Your task to perform on an android device: turn on bluetooth scan Image 0: 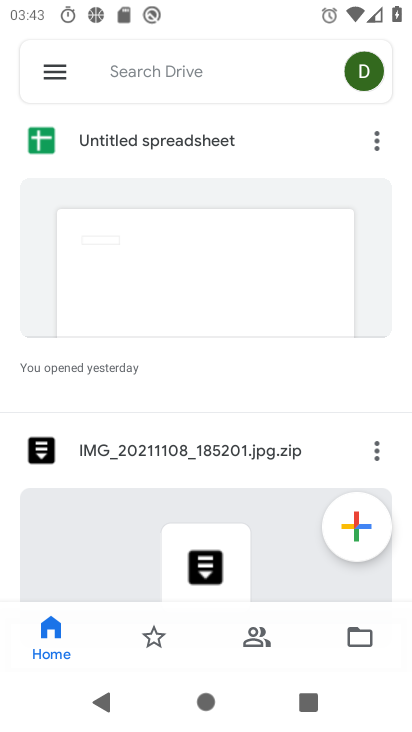
Step 0: press home button
Your task to perform on an android device: turn on bluetooth scan Image 1: 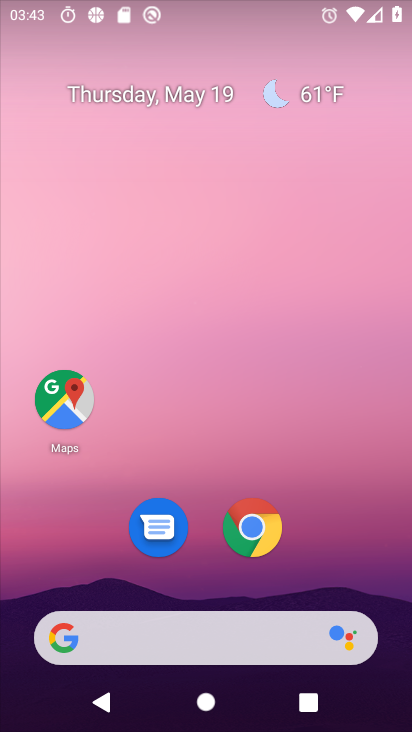
Step 1: drag from (211, 522) to (309, 53)
Your task to perform on an android device: turn on bluetooth scan Image 2: 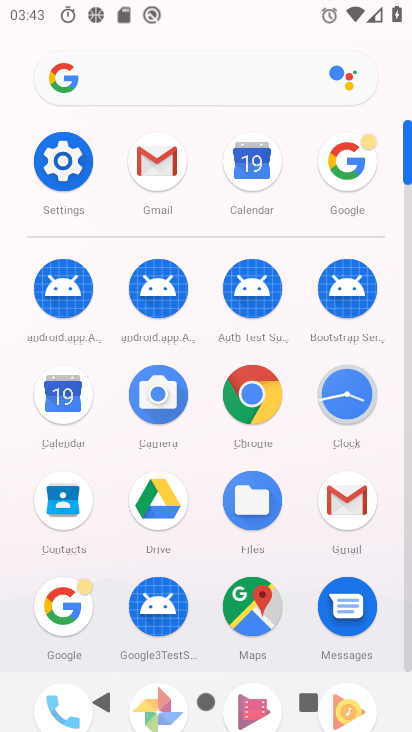
Step 2: click (56, 154)
Your task to perform on an android device: turn on bluetooth scan Image 3: 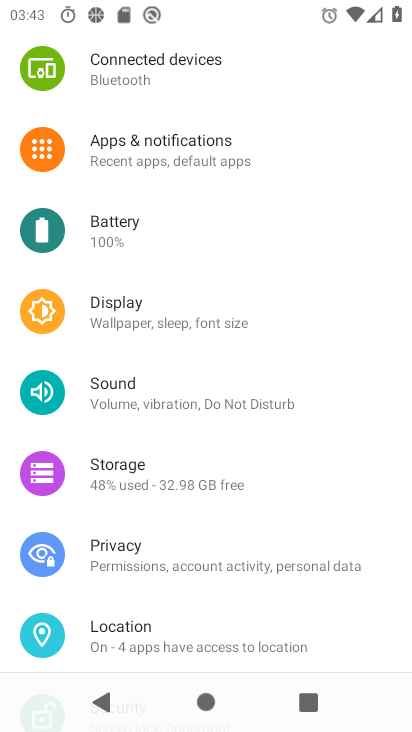
Step 3: click (164, 75)
Your task to perform on an android device: turn on bluetooth scan Image 4: 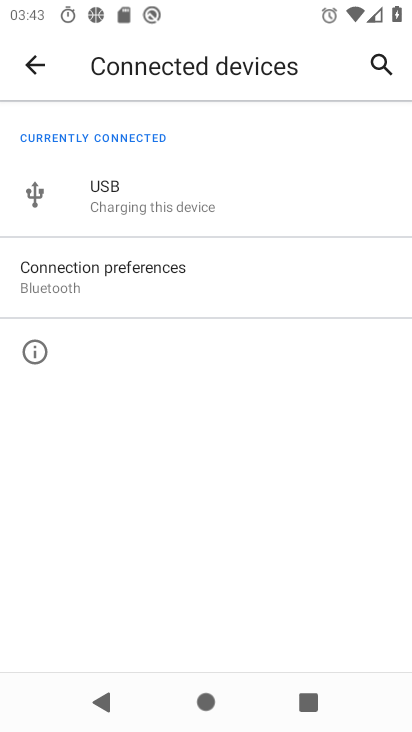
Step 4: click (41, 273)
Your task to perform on an android device: turn on bluetooth scan Image 5: 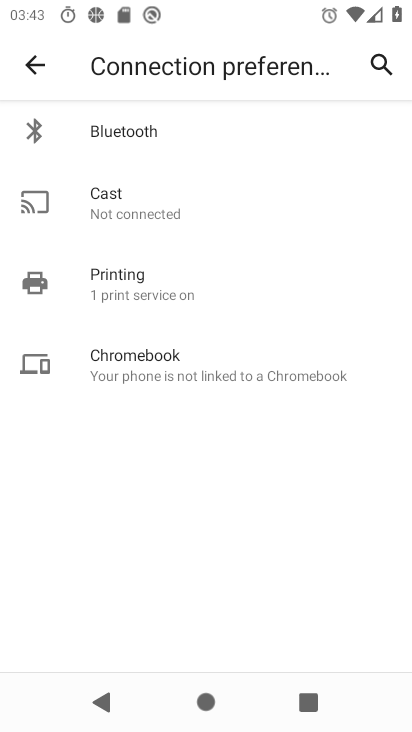
Step 5: click (160, 137)
Your task to perform on an android device: turn on bluetooth scan Image 6: 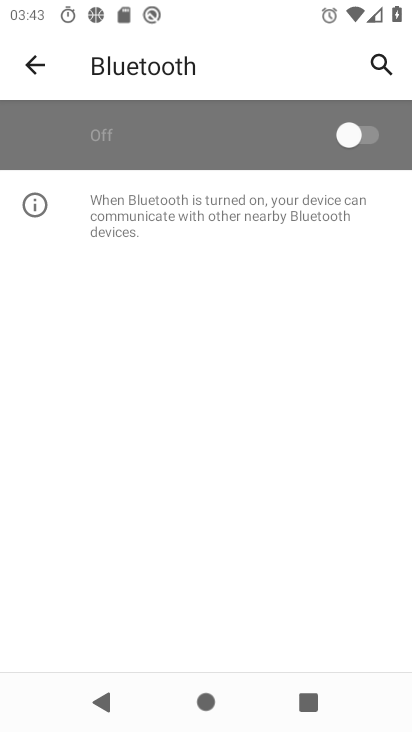
Step 6: click (353, 133)
Your task to perform on an android device: turn on bluetooth scan Image 7: 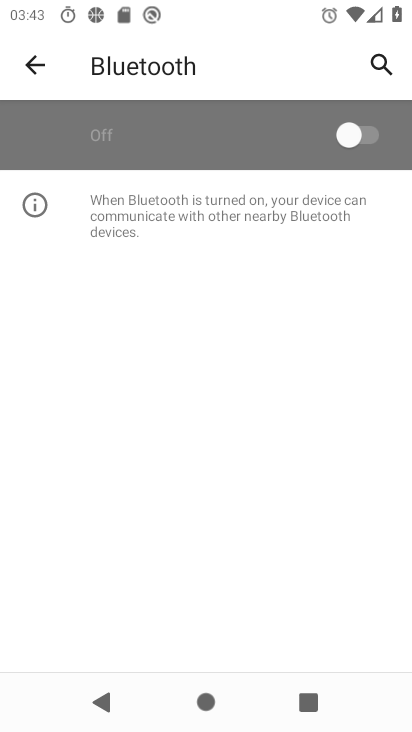
Step 7: click (347, 134)
Your task to perform on an android device: turn on bluetooth scan Image 8: 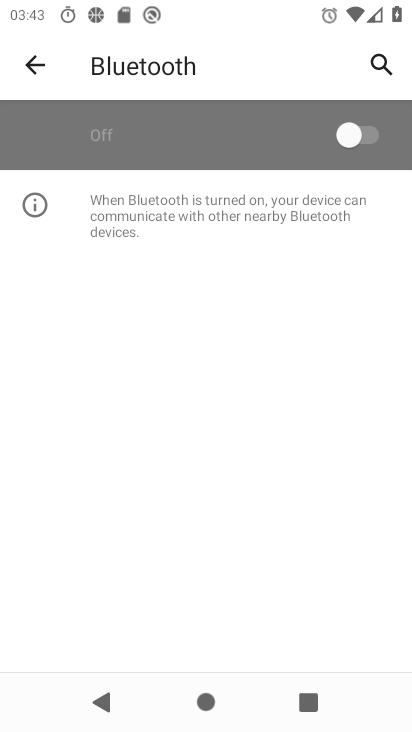
Step 8: task complete